Your task to perform on an android device: clear history in the chrome app Image 0: 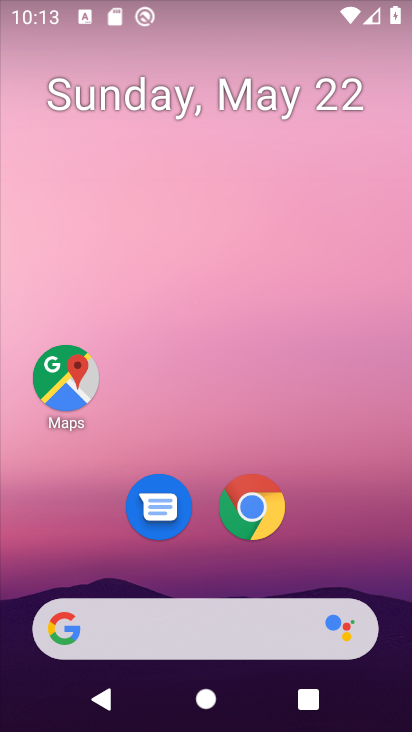
Step 0: click (256, 509)
Your task to perform on an android device: clear history in the chrome app Image 1: 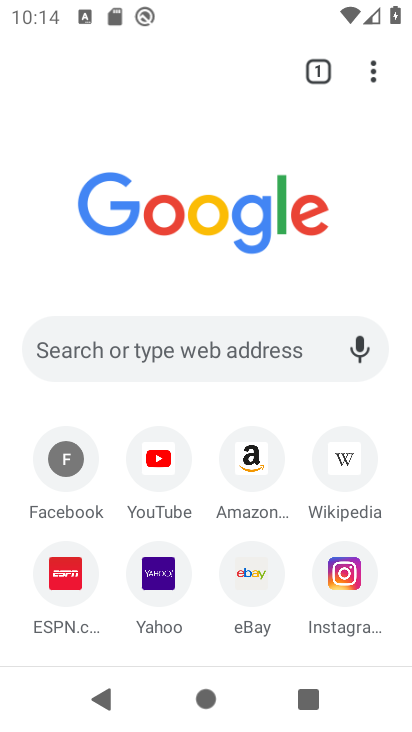
Step 1: click (368, 63)
Your task to perform on an android device: clear history in the chrome app Image 2: 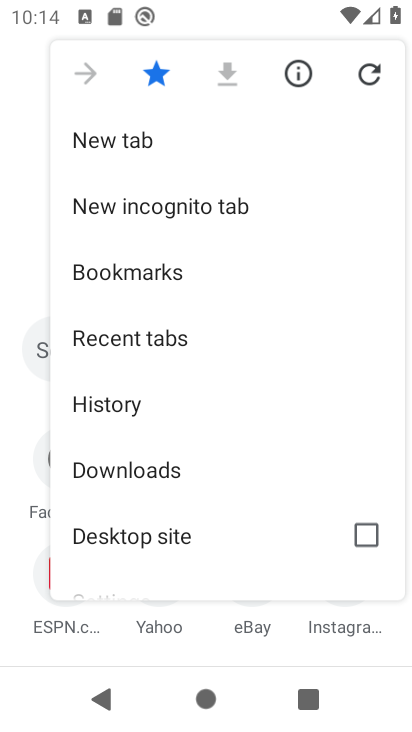
Step 2: click (110, 414)
Your task to perform on an android device: clear history in the chrome app Image 3: 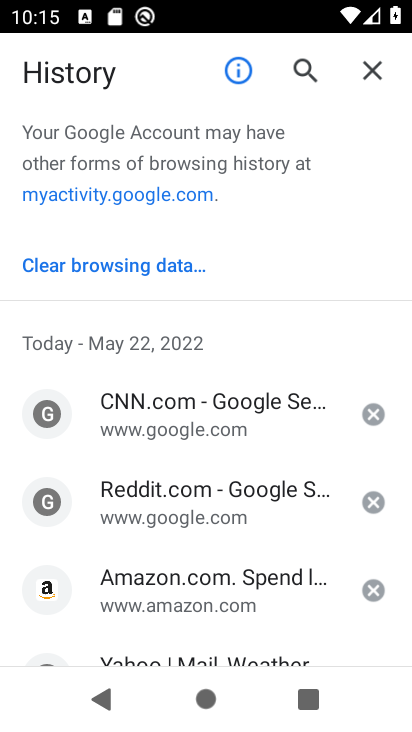
Step 3: click (100, 261)
Your task to perform on an android device: clear history in the chrome app Image 4: 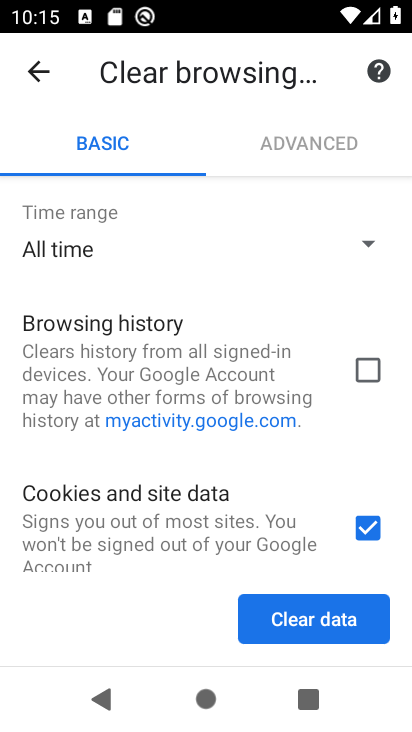
Step 4: click (367, 366)
Your task to perform on an android device: clear history in the chrome app Image 5: 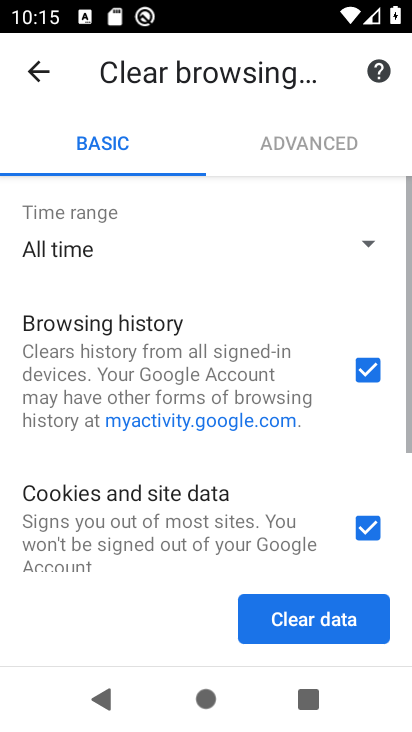
Step 5: click (317, 625)
Your task to perform on an android device: clear history in the chrome app Image 6: 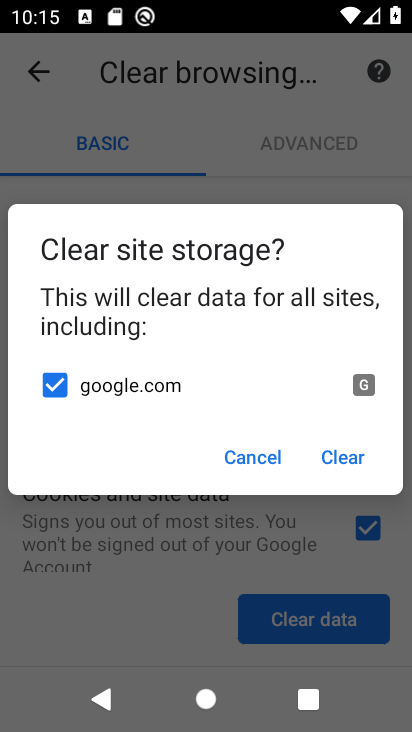
Step 6: click (339, 457)
Your task to perform on an android device: clear history in the chrome app Image 7: 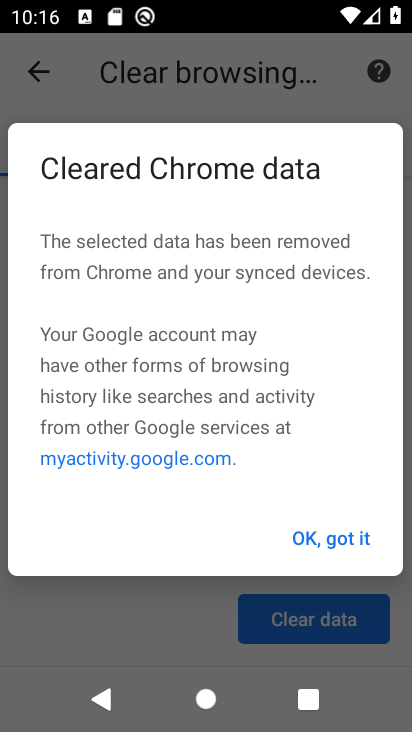
Step 7: click (313, 540)
Your task to perform on an android device: clear history in the chrome app Image 8: 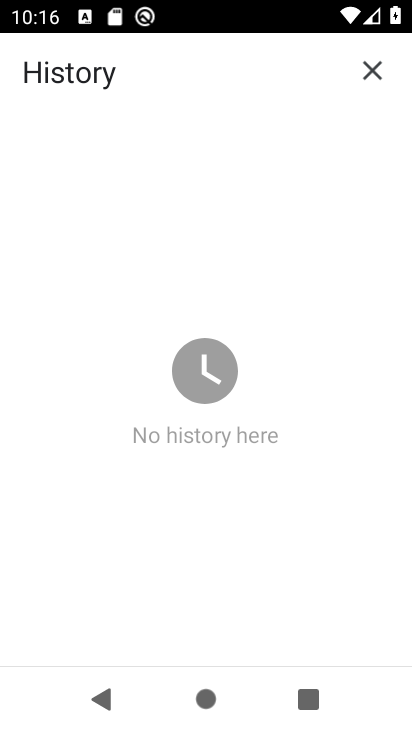
Step 8: task complete